Your task to perform on an android device: turn off notifications in google photos Image 0: 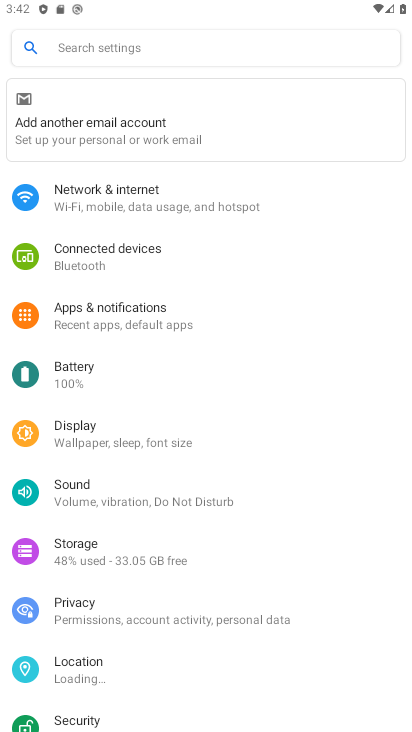
Step 0: press home button
Your task to perform on an android device: turn off notifications in google photos Image 1: 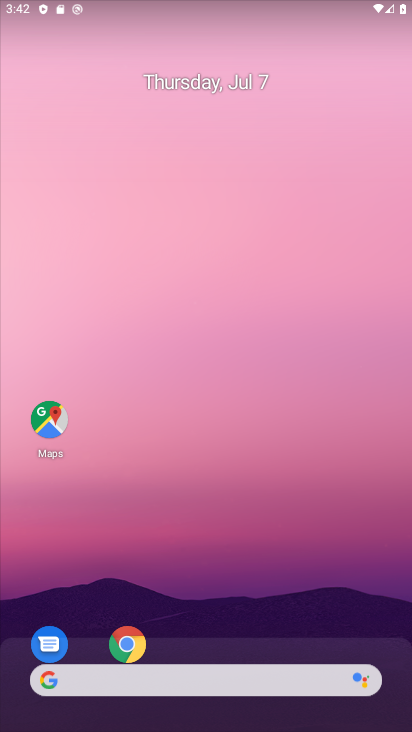
Step 1: drag from (213, 541) to (285, 55)
Your task to perform on an android device: turn off notifications in google photos Image 2: 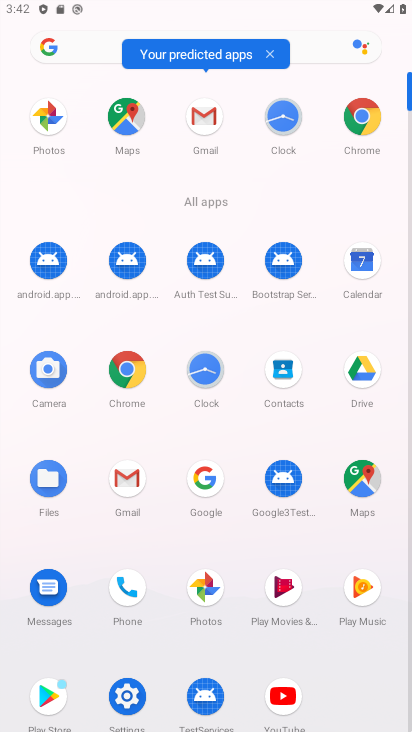
Step 2: click (210, 593)
Your task to perform on an android device: turn off notifications in google photos Image 3: 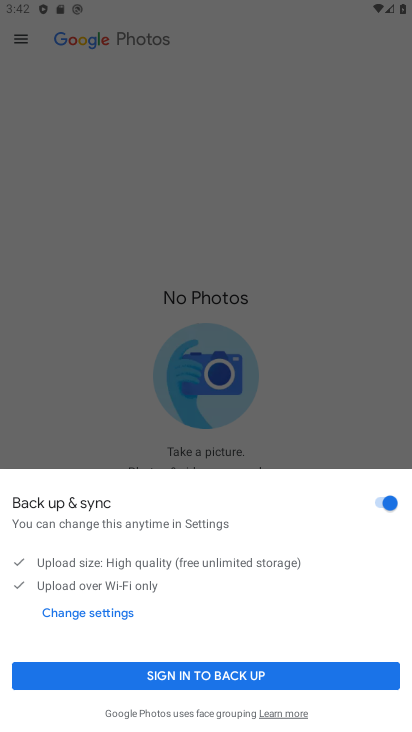
Step 3: click (217, 674)
Your task to perform on an android device: turn off notifications in google photos Image 4: 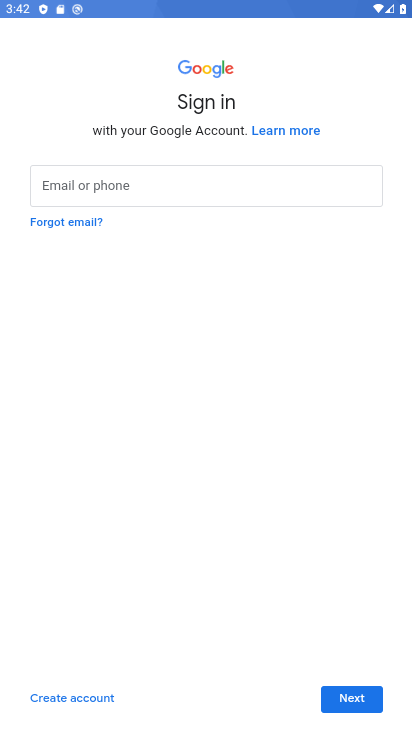
Step 4: task complete